Your task to perform on an android device: Play the last video I watched on Youtube Image 0: 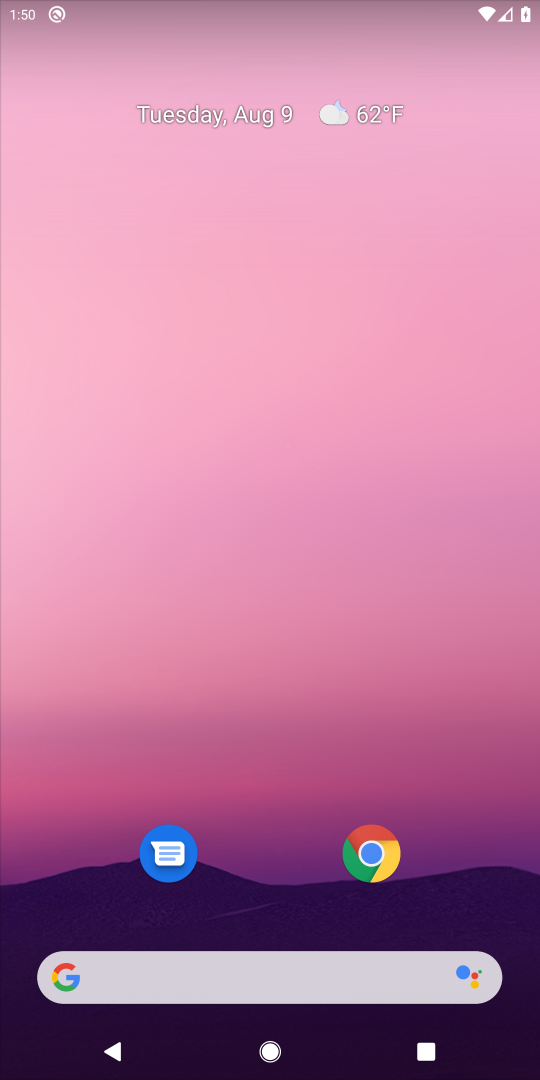
Step 0: drag from (227, 781) to (234, 78)
Your task to perform on an android device: Play the last video I watched on Youtube Image 1: 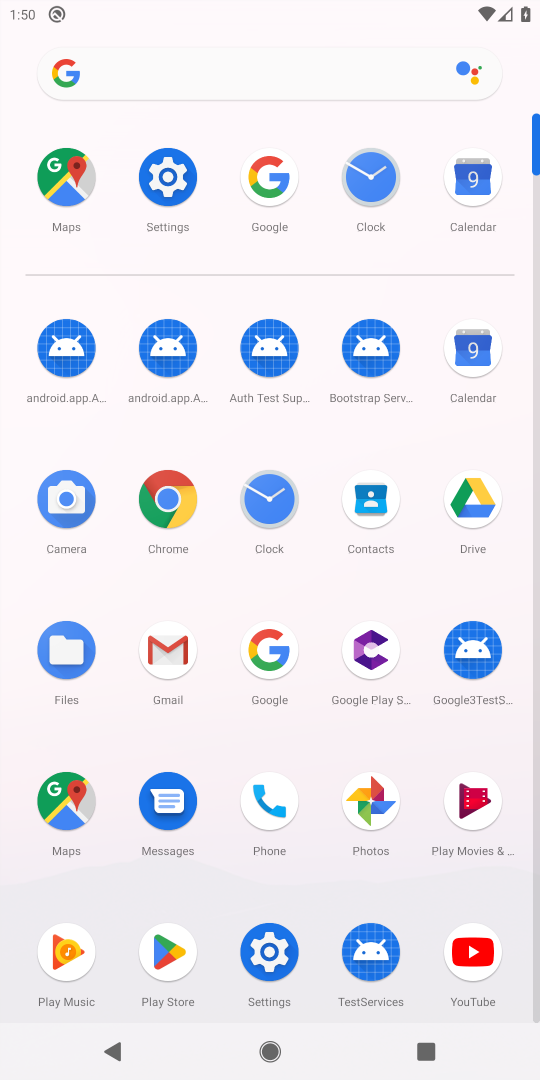
Step 1: click (461, 959)
Your task to perform on an android device: Play the last video I watched on Youtube Image 2: 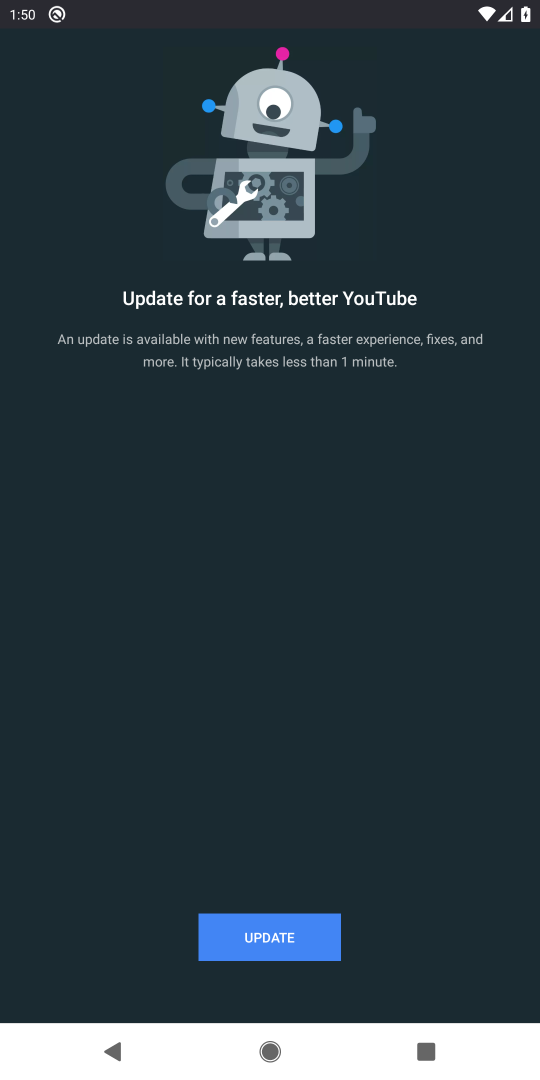
Step 2: click (323, 941)
Your task to perform on an android device: Play the last video I watched on Youtube Image 3: 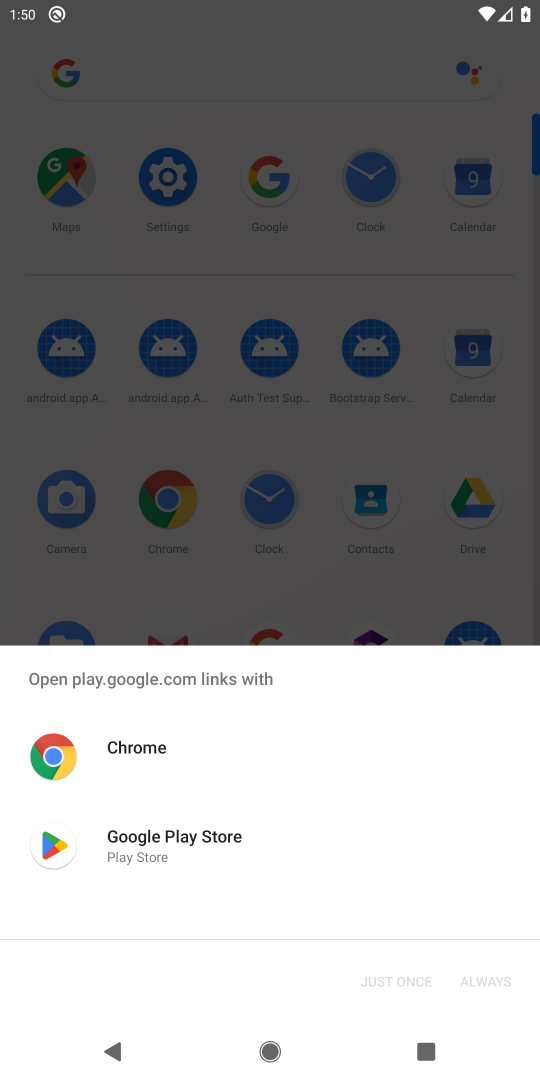
Step 3: click (117, 842)
Your task to perform on an android device: Play the last video I watched on Youtube Image 4: 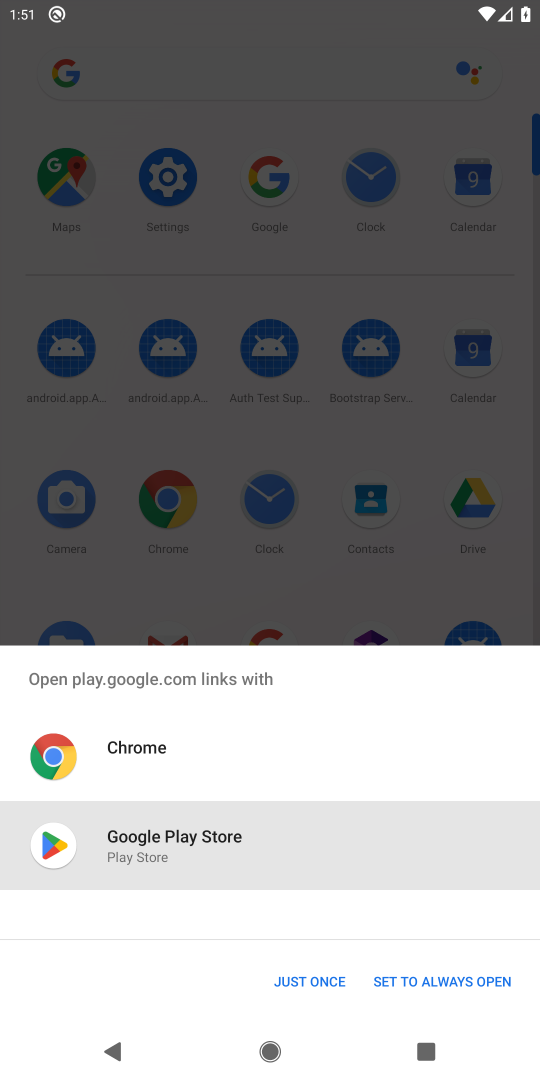
Step 4: click (308, 985)
Your task to perform on an android device: Play the last video I watched on Youtube Image 5: 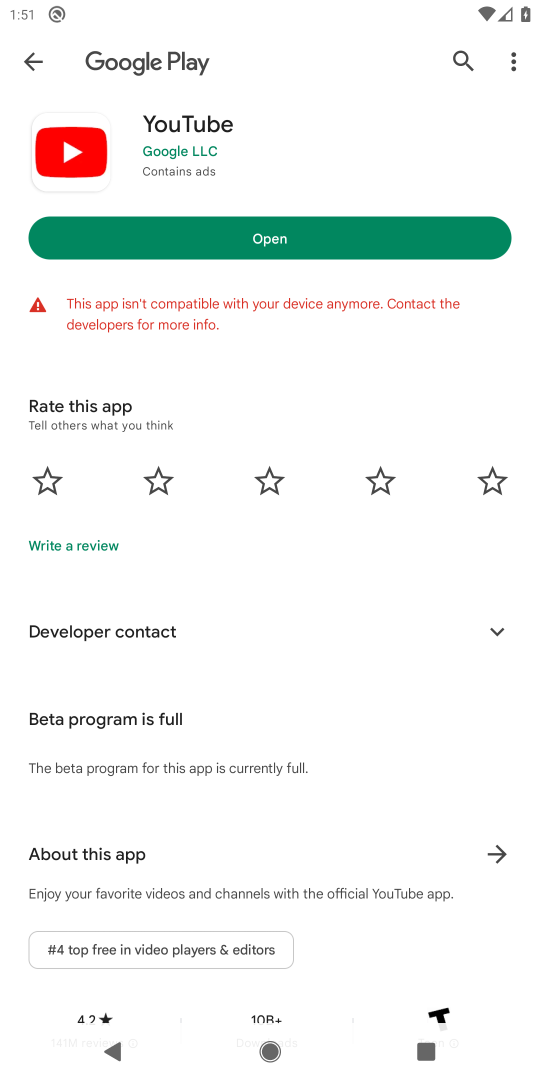
Step 5: click (300, 242)
Your task to perform on an android device: Play the last video I watched on Youtube Image 6: 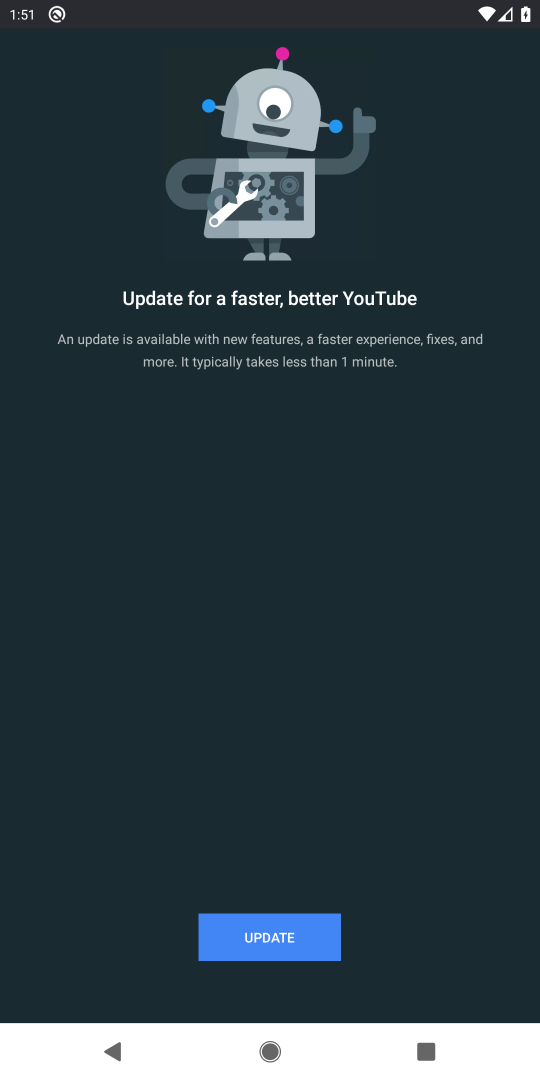
Step 6: task complete